Your task to perform on an android device: allow notifications from all sites in the chrome app Image 0: 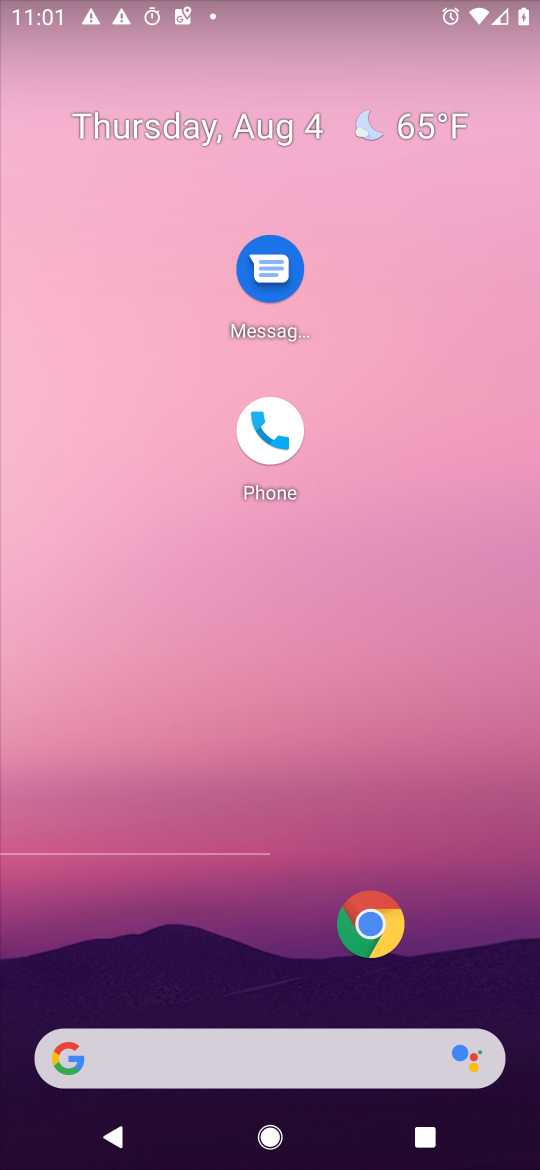
Step 0: drag from (263, 885) to (309, 77)
Your task to perform on an android device: allow notifications from all sites in the chrome app Image 1: 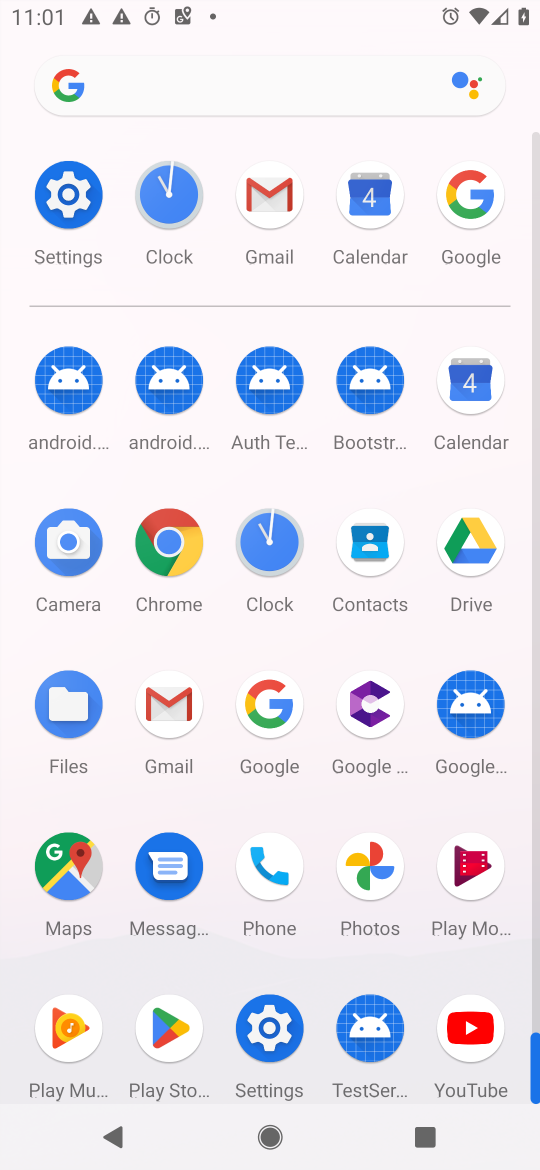
Step 1: click (152, 537)
Your task to perform on an android device: allow notifications from all sites in the chrome app Image 2: 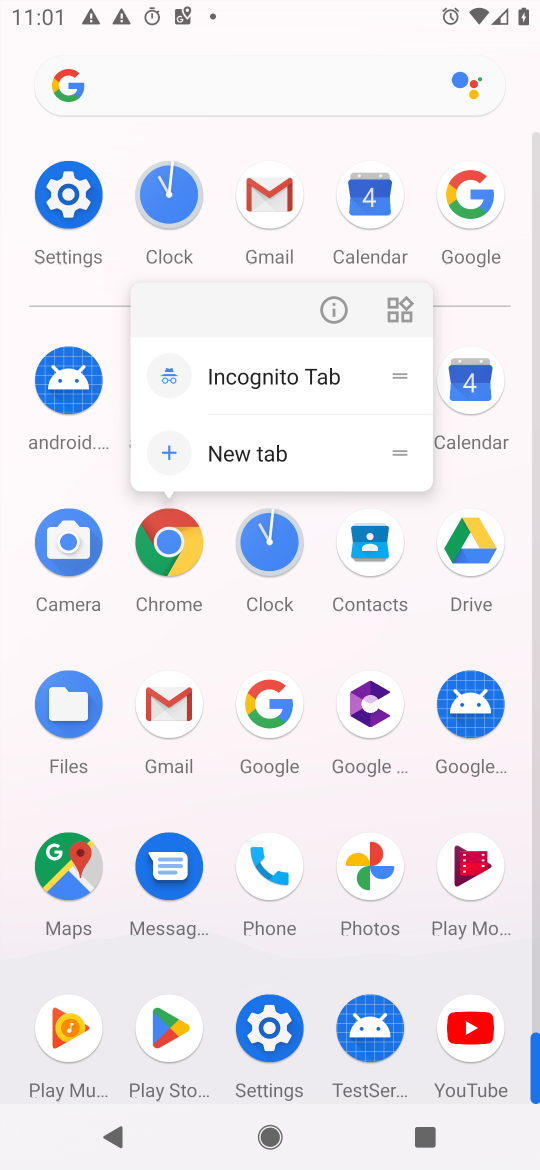
Step 2: click (326, 303)
Your task to perform on an android device: allow notifications from all sites in the chrome app Image 3: 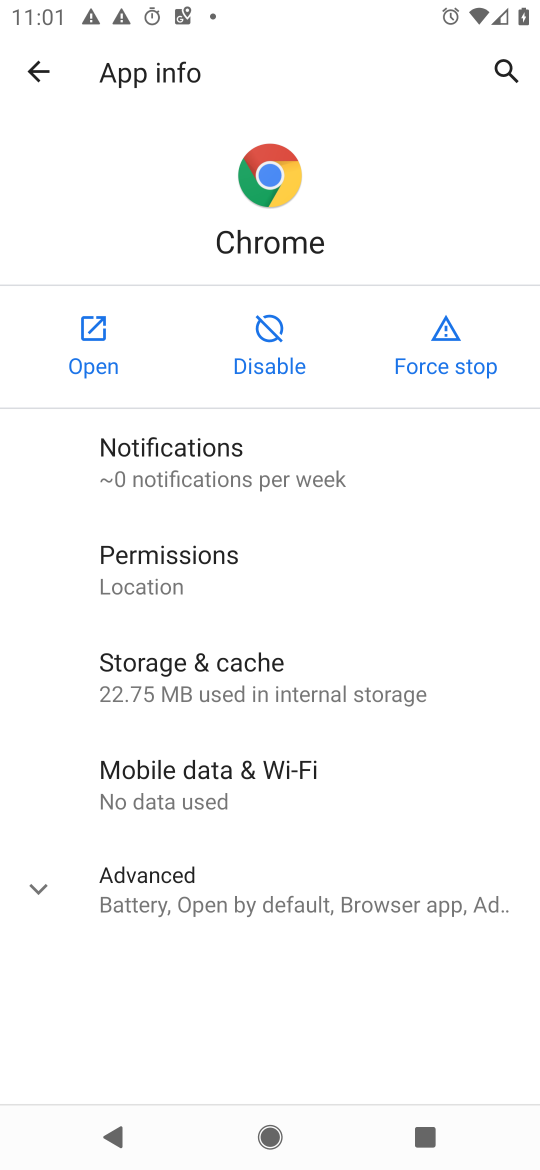
Step 3: click (90, 331)
Your task to perform on an android device: allow notifications from all sites in the chrome app Image 4: 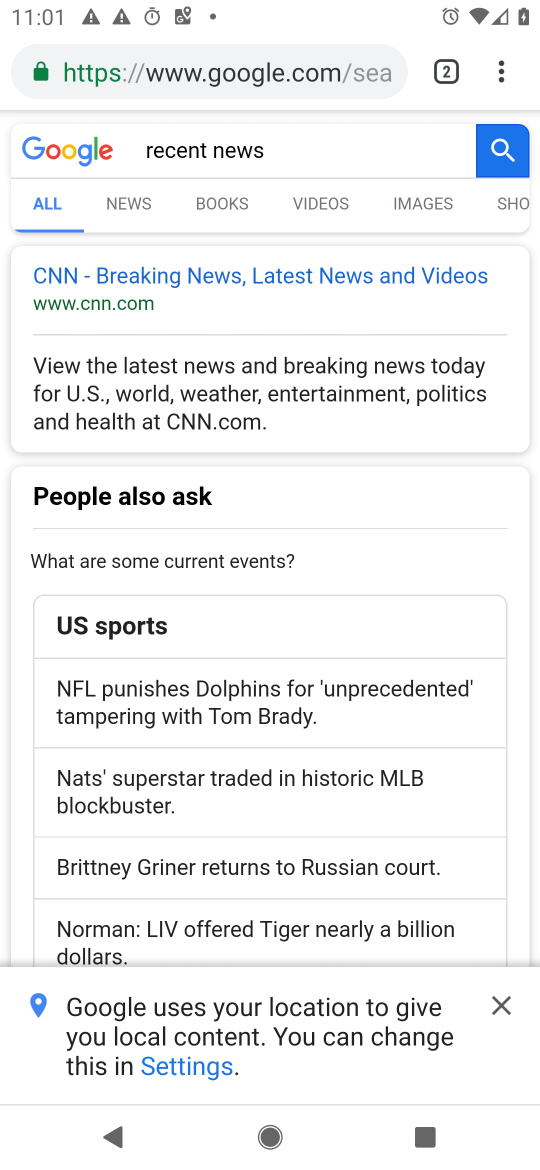
Step 4: drag from (510, 63) to (246, 803)
Your task to perform on an android device: allow notifications from all sites in the chrome app Image 5: 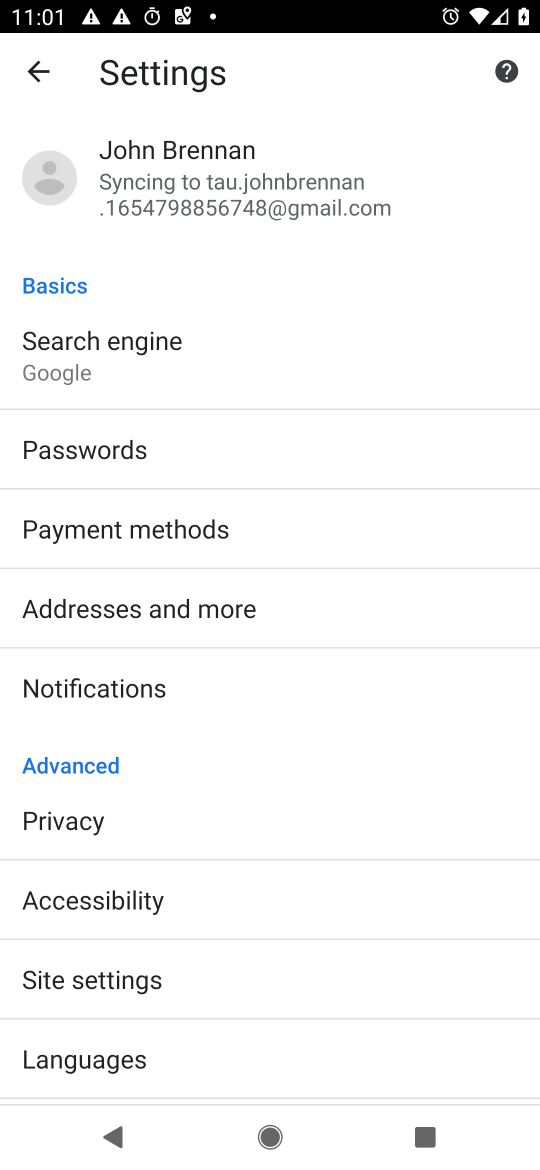
Step 5: drag from (210, 995) to (323, 213)
Your task to perform on an android device: allow notifications from all sites in the chrome app Image 6: 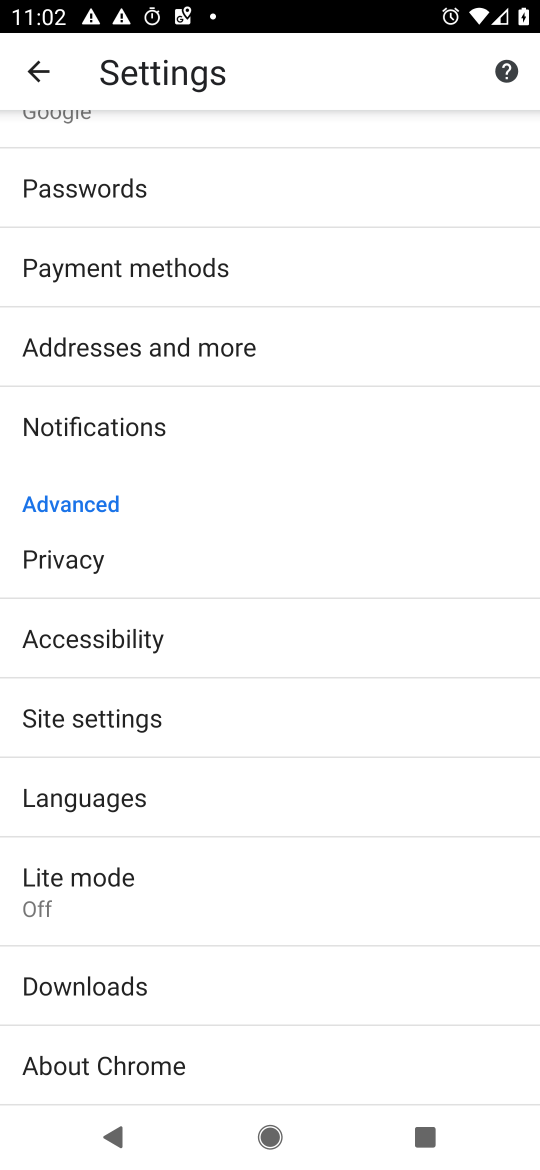
Step 6: drag from (186, 346) to (273, 820)
Your task to perform on an android device: allow notifications from all sites in the chrome app Image 7: 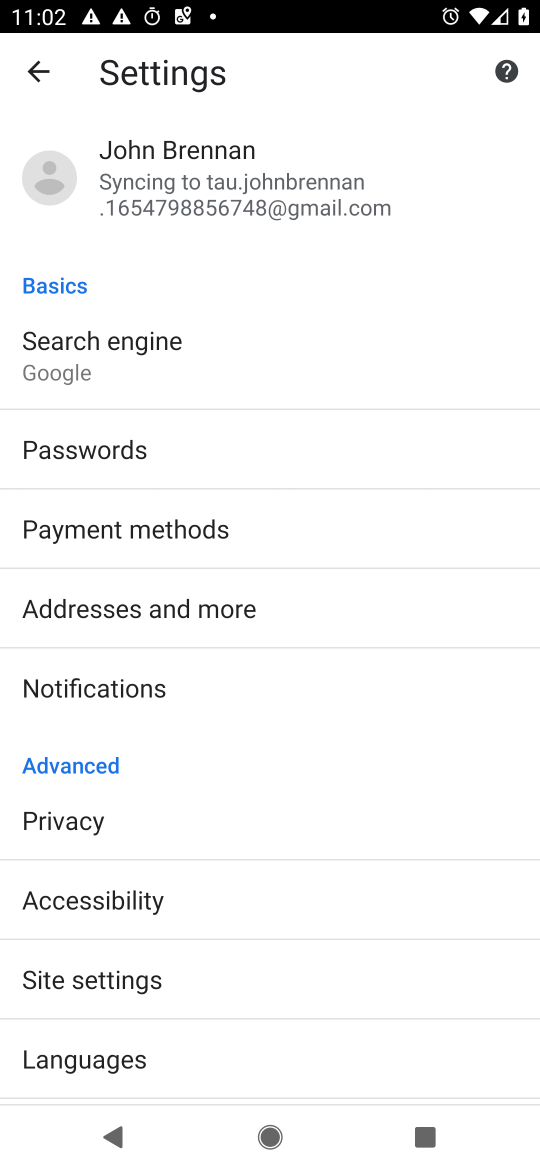
Step 7: click (175, 686)
Your task to perform on an android device: allow notifications from all sites in the chrome app Image 8: 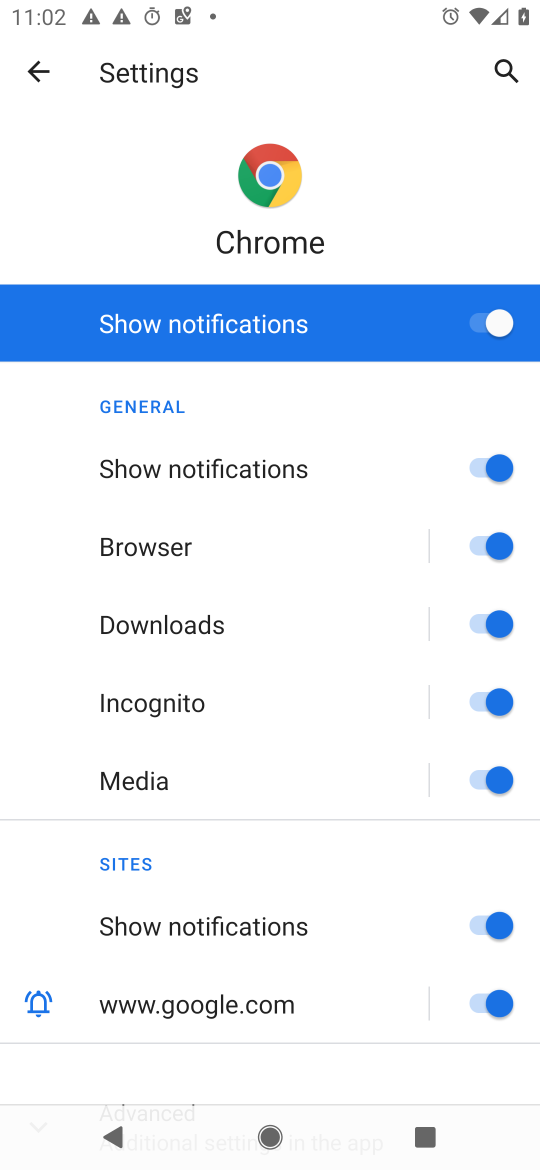
Step 8: click (53, 72)
Your task to perform on an android device: allow notifications from all sites in the chrome app Image 9: 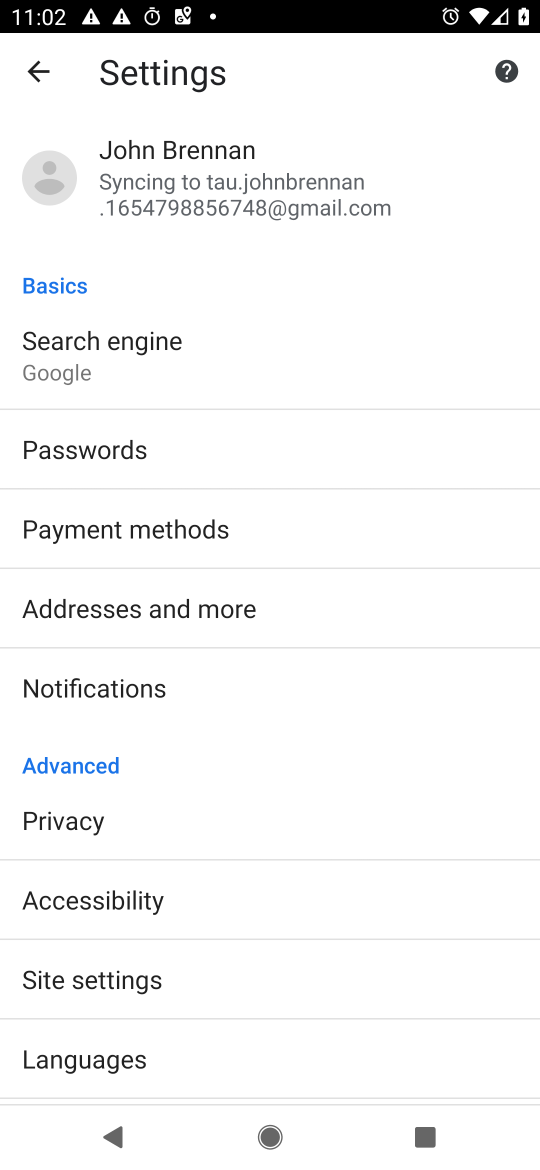
Step 9: click (48, 74)
Your task to perform on an android device: allow notifications from all sites in the chrome app Image 10: 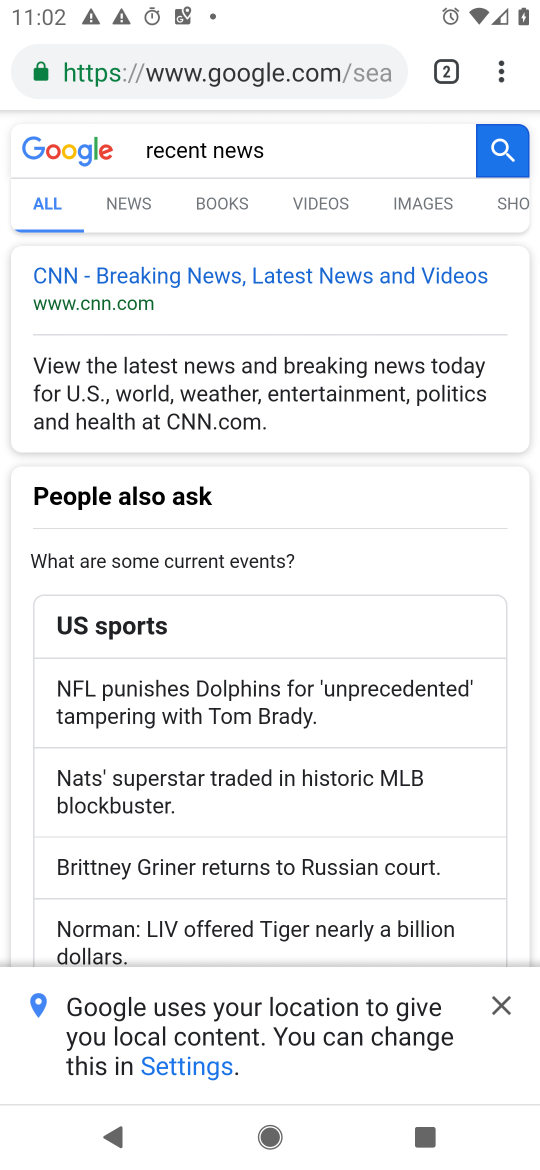
Step 10: drag from (500, 73) to (259, 803)
Your task to perform on an android device: allow notifications from all sites in the chrome app Image 11: 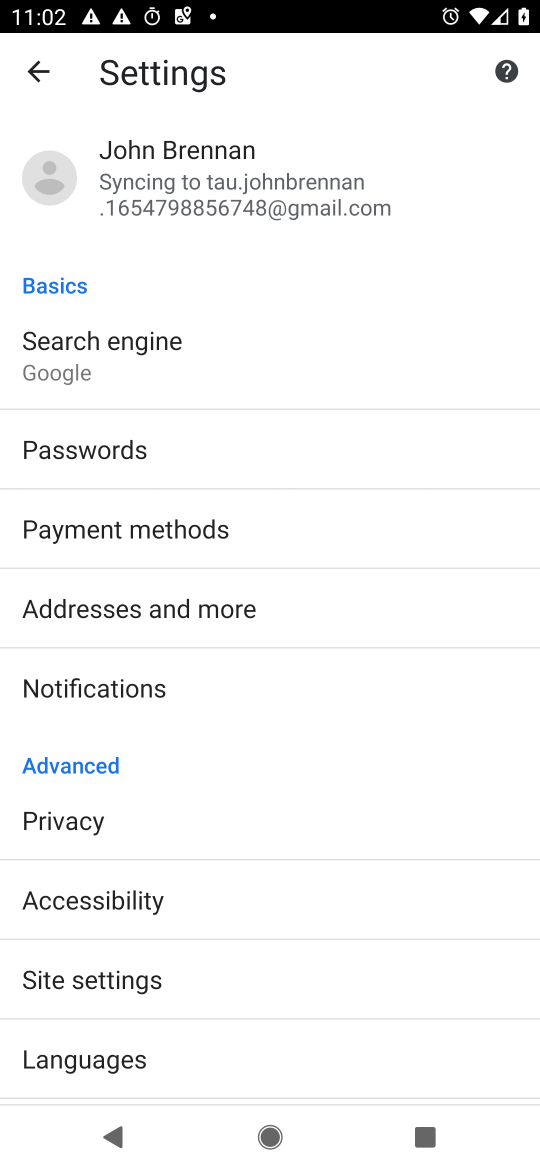
Step 11: click (105, 993)
Your task to perform on an android device: allow notifications from all sites in the chrome app Image 12: 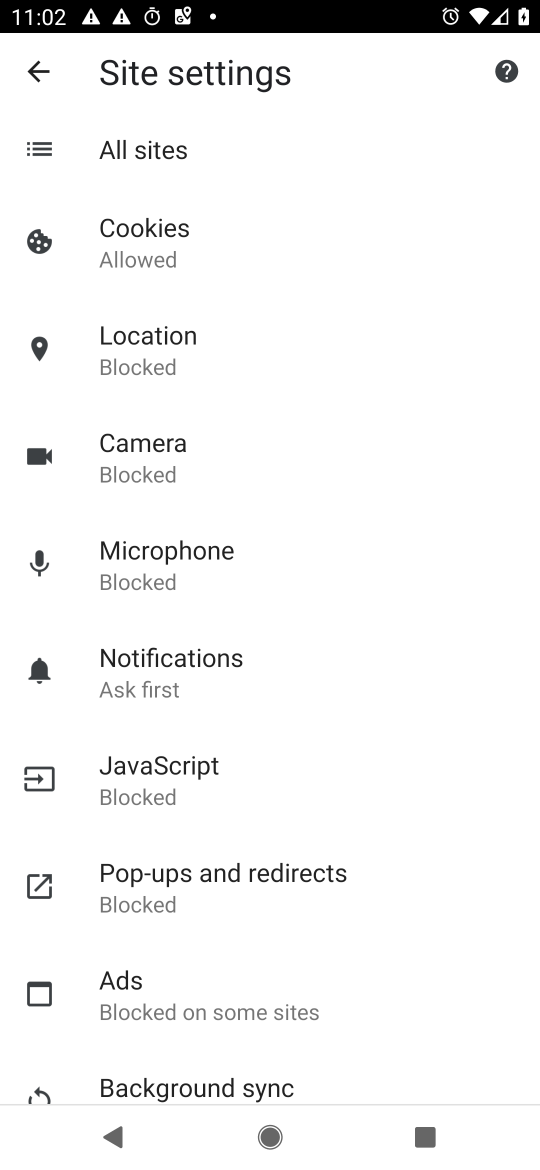
Step 12: click (118, 669)
Your task to perform on an android device: allow notifications from all sites in the chrome app Image 13: 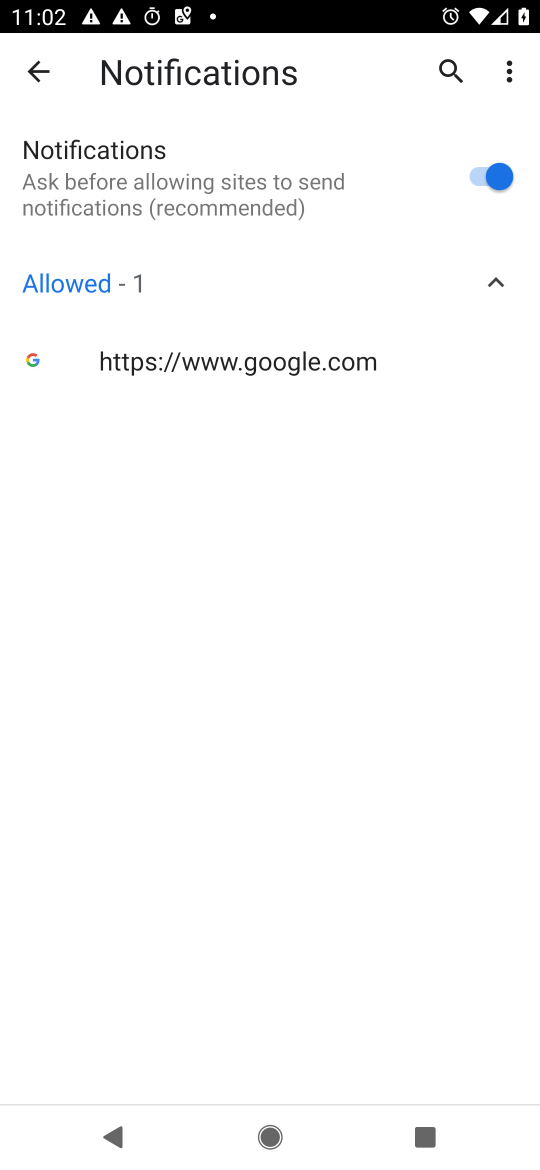
Step 13: task complete